Your task to perform on an android device: add a contact in the contacts app Image 0: 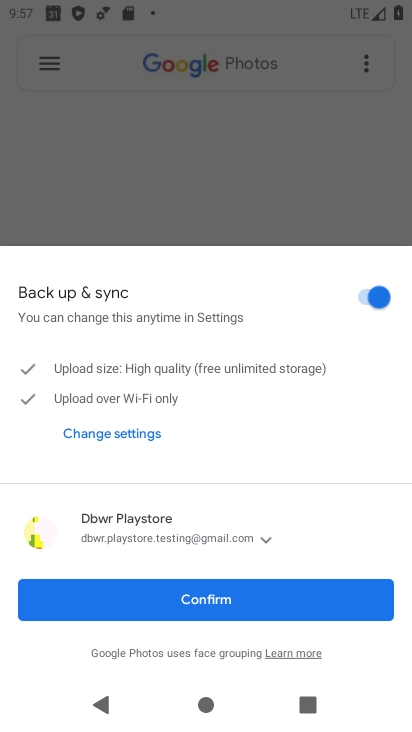
Step 0: press home button
Your task to perform on an android device: add a contact in the contacts app Image 1: 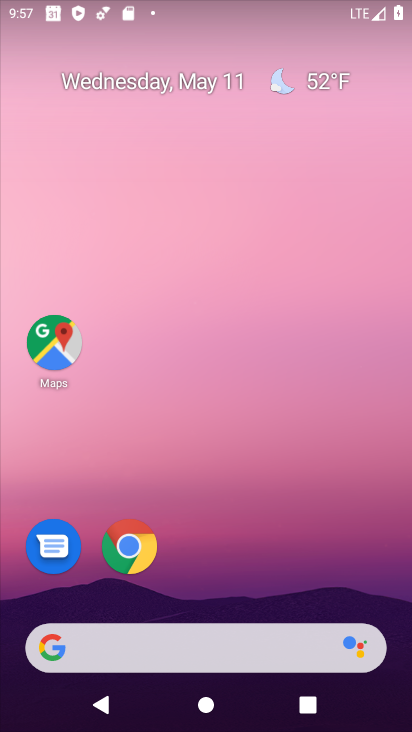
Step 1: drag from (186, 645) to (145, 105)
Your task to perform on an android device: add a contact in the contacts app Image 2: 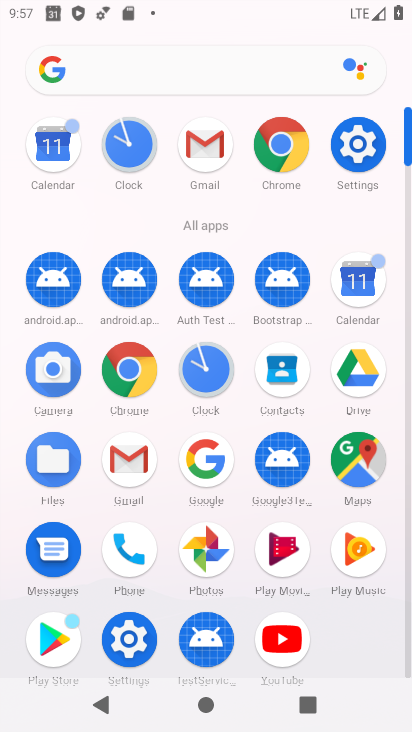
Step 2: click (282, 378)
Your task to perform on an android device: add a contact in the contacts app Image 3: 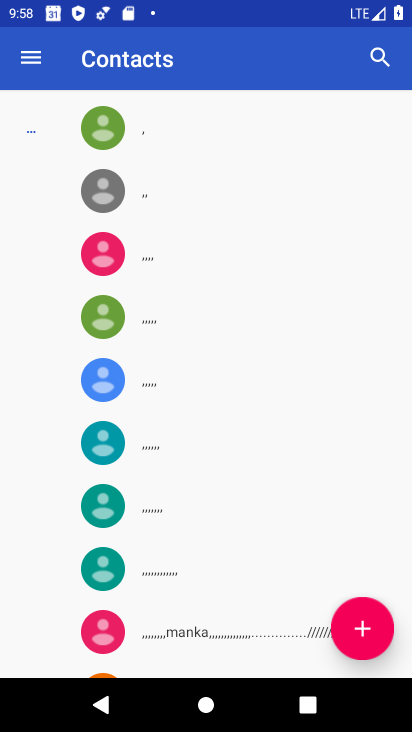
Step 3: click (350, 637)
Your task to perform on an android device: add a contact in the contacts app Image 4: 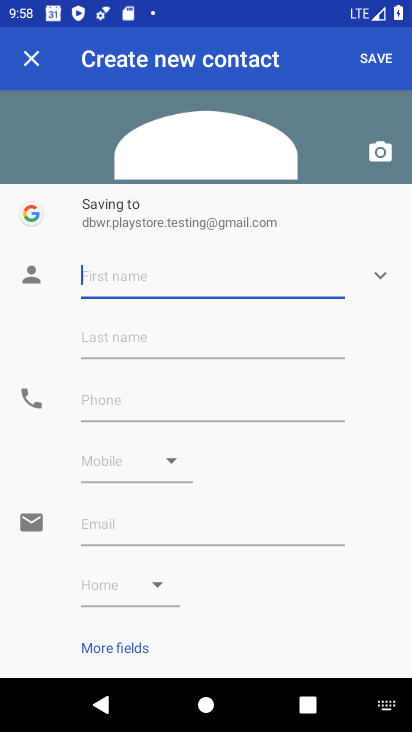
Step 4: type "gsdfhsd"
Your task to perform on an android device: add a contact in the contacts app Image 5: 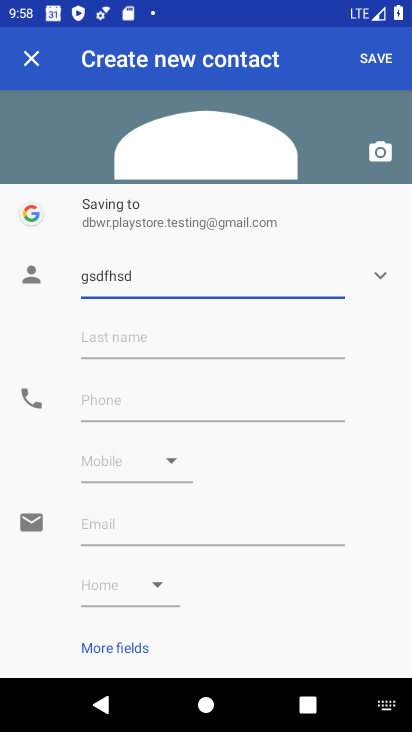
Step 5: click (118, 376)
Your task to perform on an android device: add a contact in the contacts app Image 6: 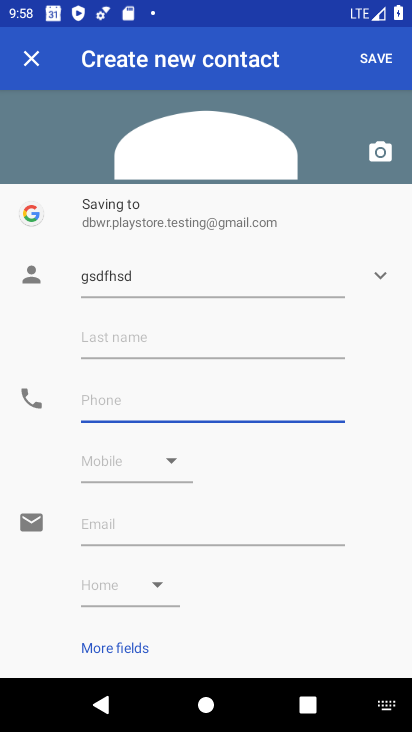
Step 6: type "293478273"
Your task to perform on an android device: add a contact in the contacts app Image 7: 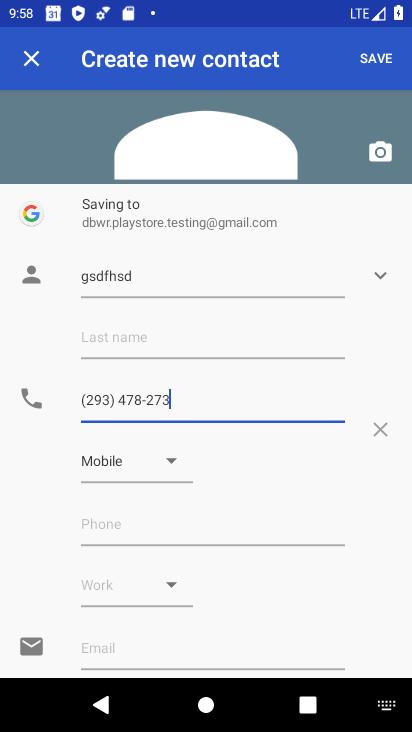
Step 7: click (368, 69)
Your task to perform on an android device: add a contact in the contacts app Image 8: 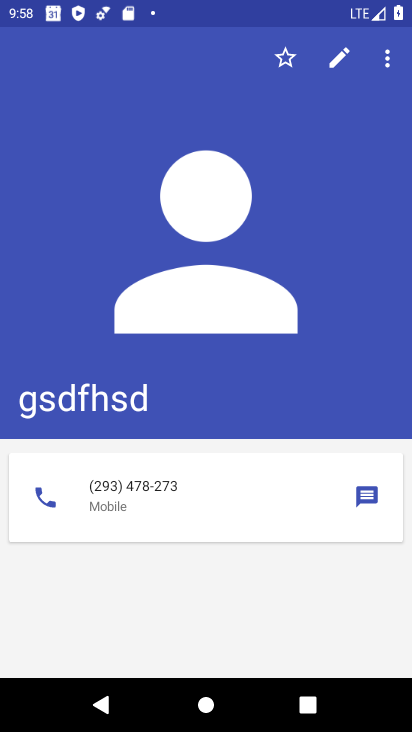
Step 8: task complete